Your task to perform on an android device: Show me recent news Image 0: 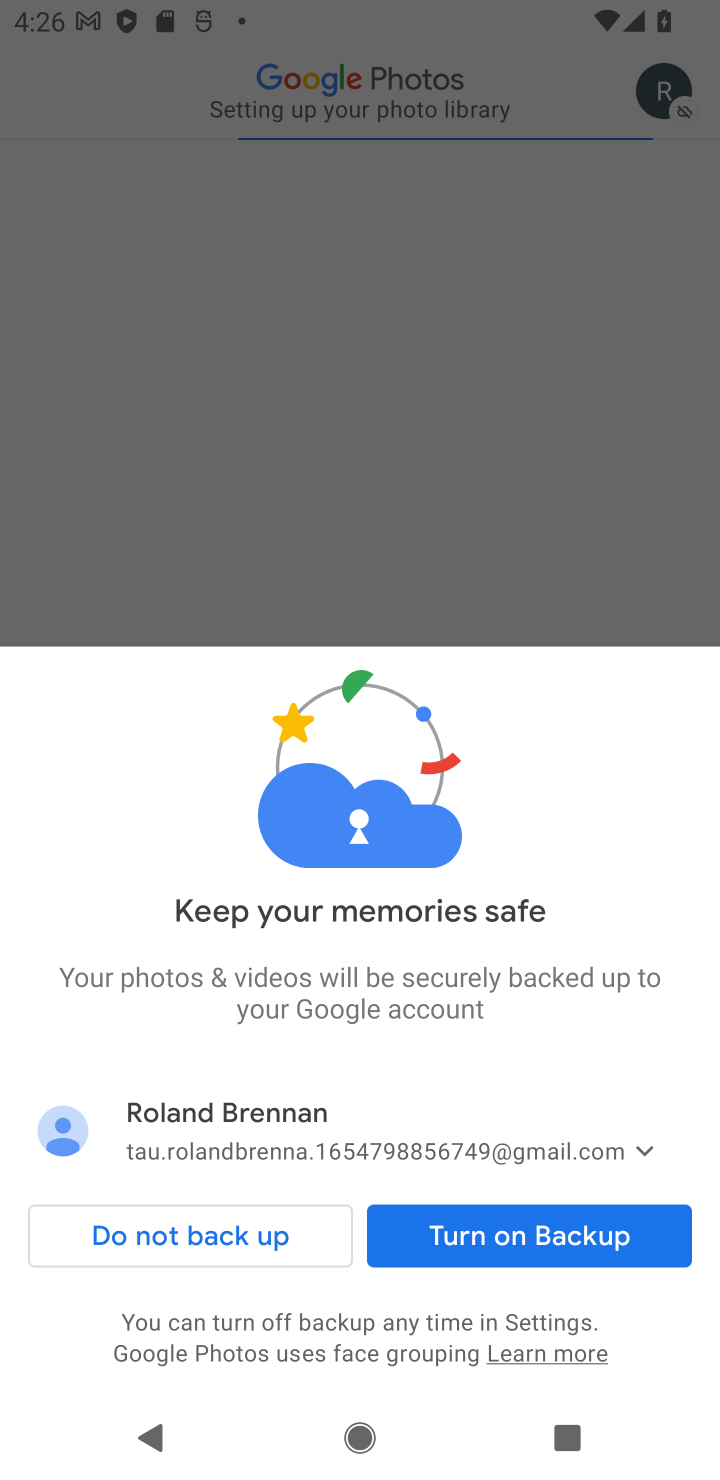
Step 0: press home button
Your task to perform on an android device: Show me recent news Image 1: 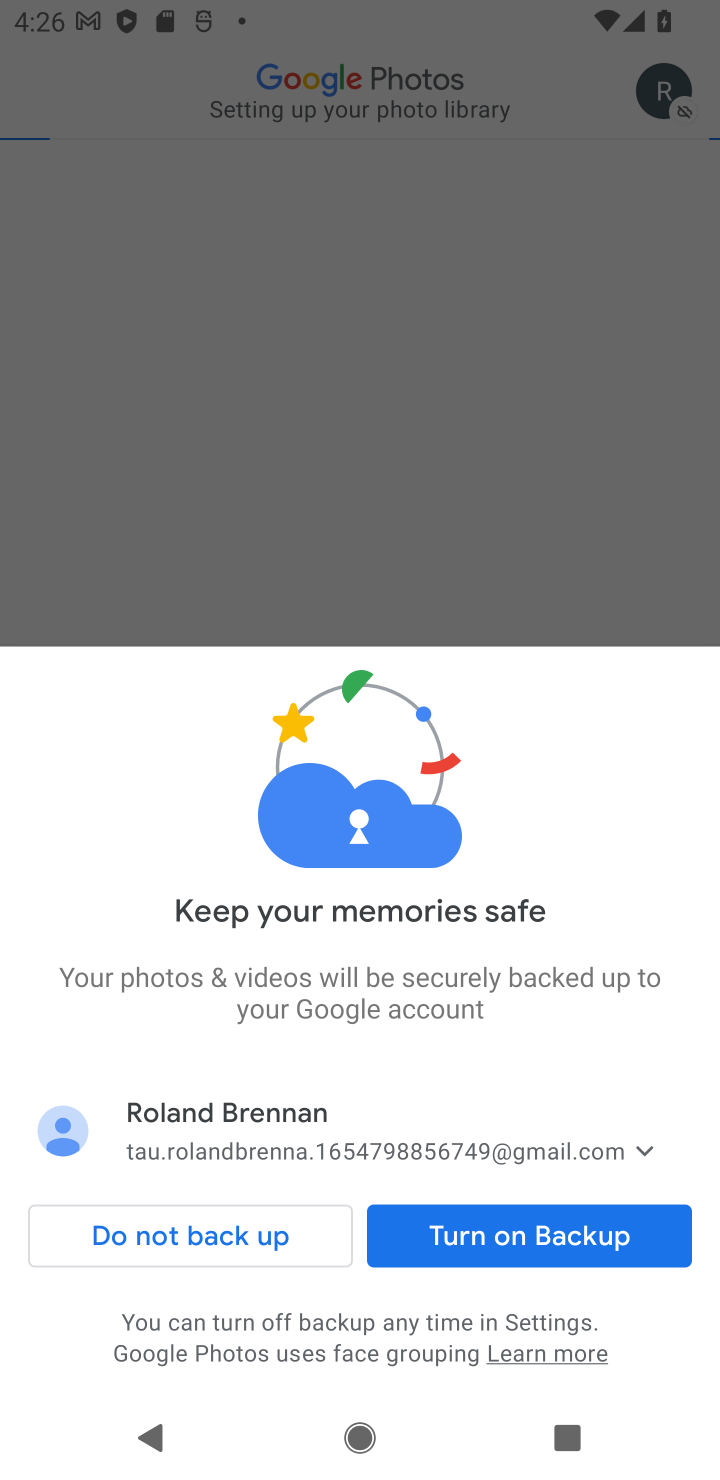
Step 1: press home button
Your task to perform on an android device: Show me recent news Image 2: 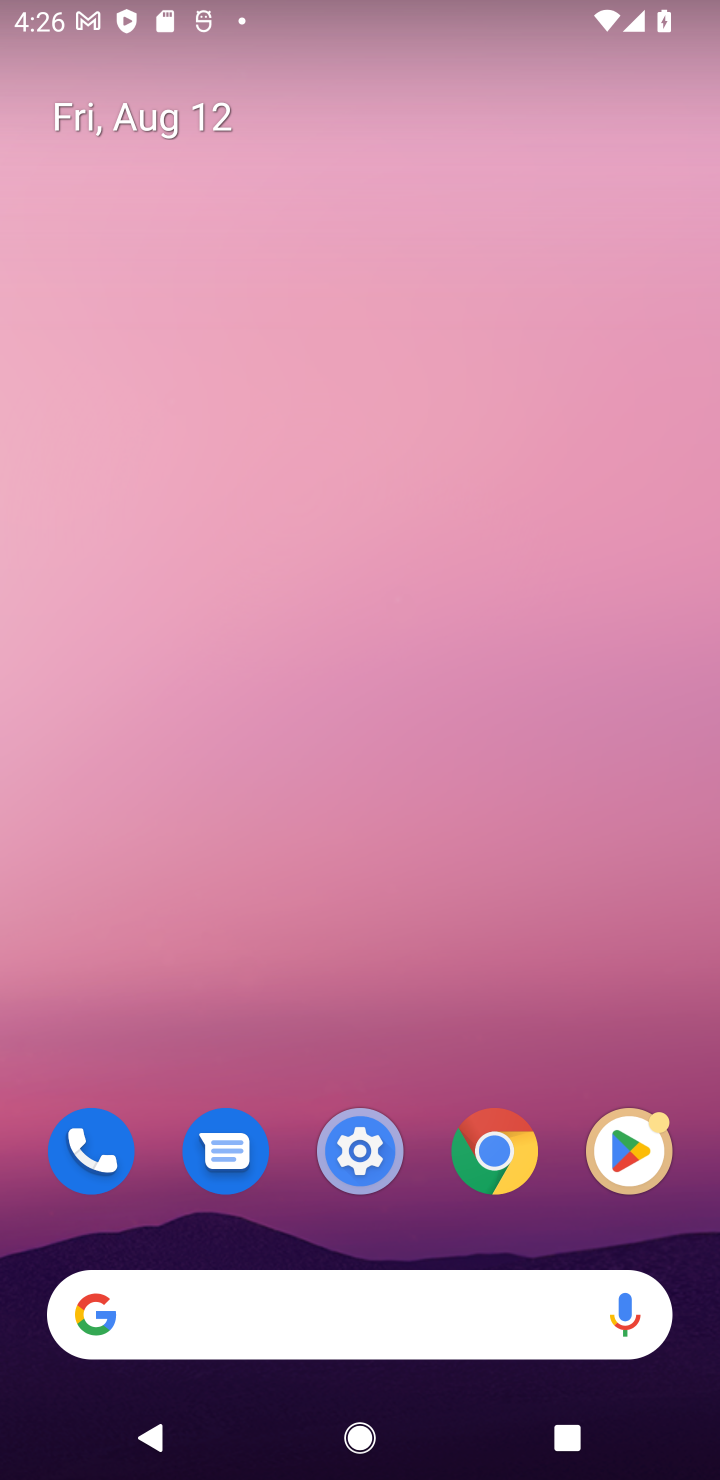
Step 2: drag from (417, 1066) to (447, 191)
Your task to perform on an android device: Show me recent news Image 3: 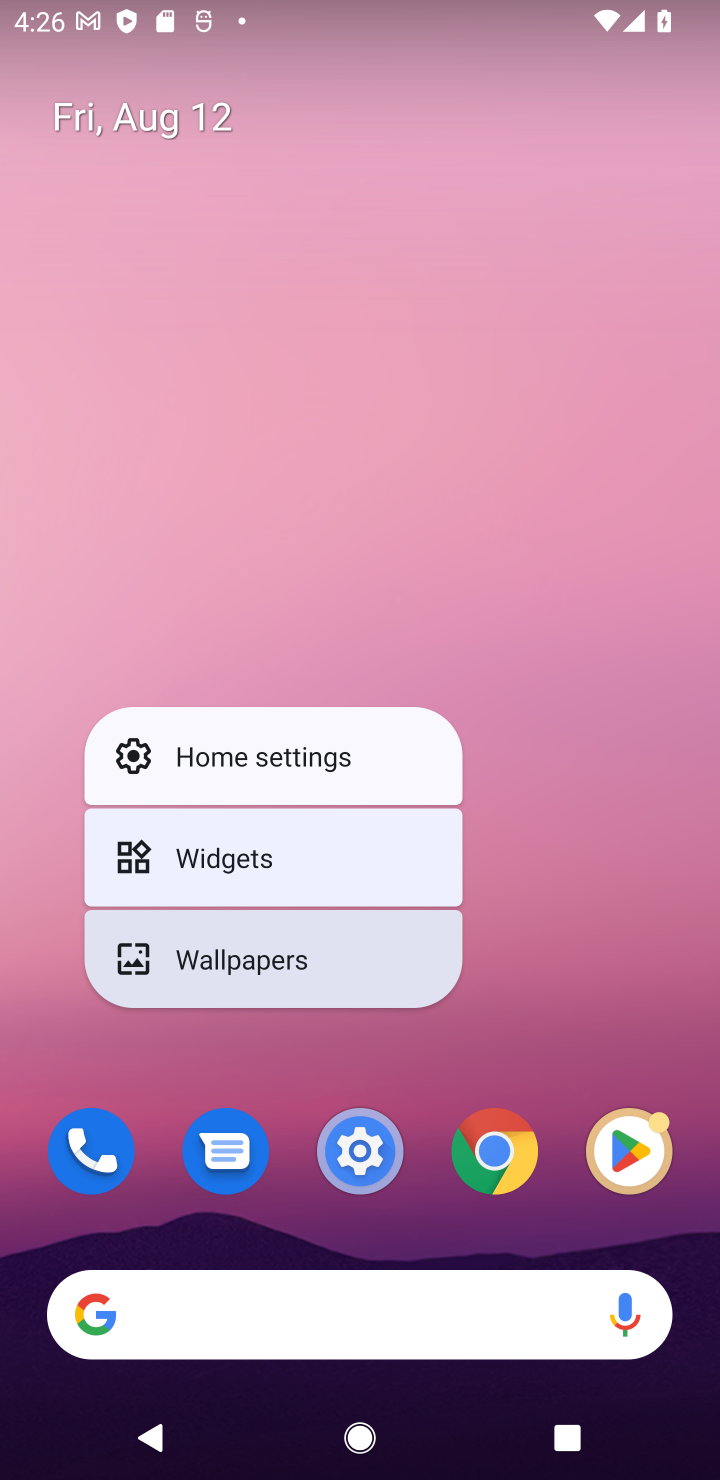
Step 3: click (574, 795)
Your task to perform on an android device: Show me recent news Image 4: 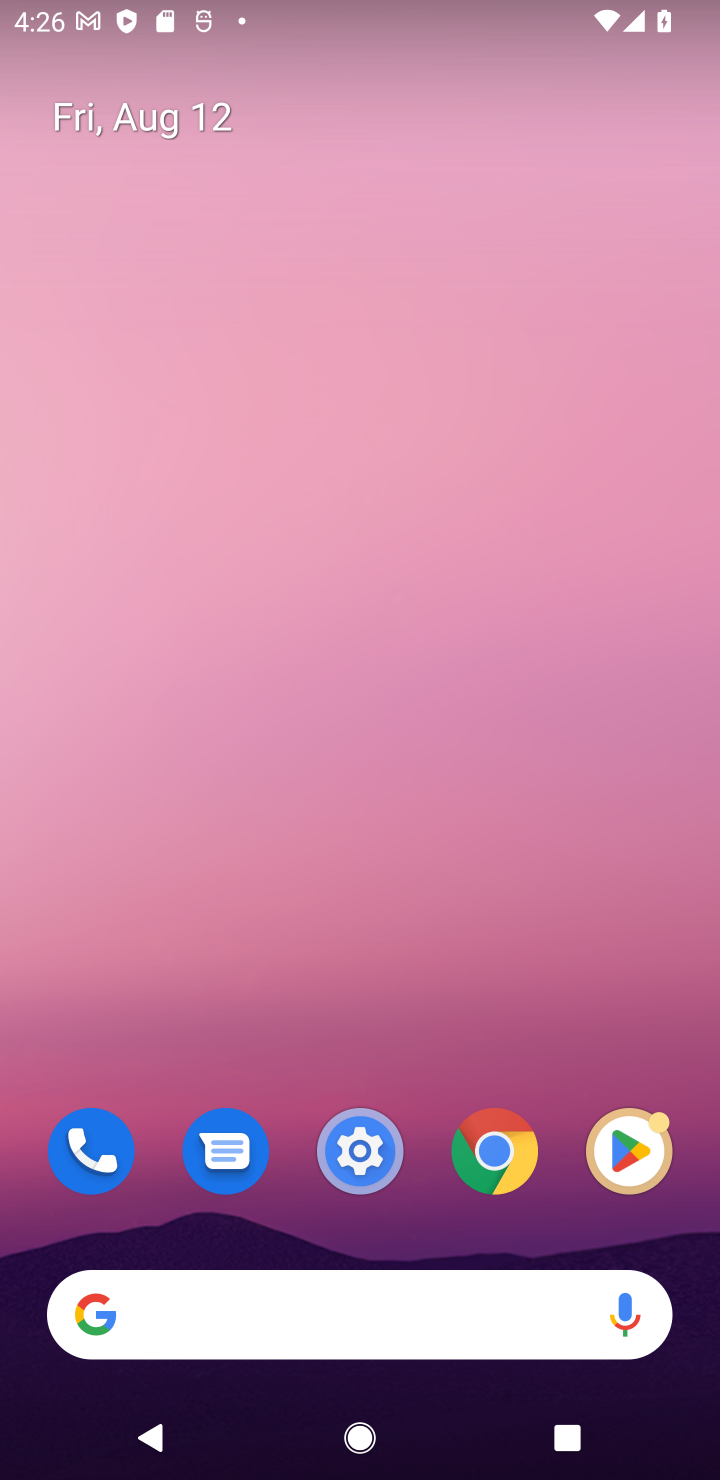
Step 4: drag from (430, 906) to (427, 0)
Your task to perform on an android device: Show me recent news Image 5: 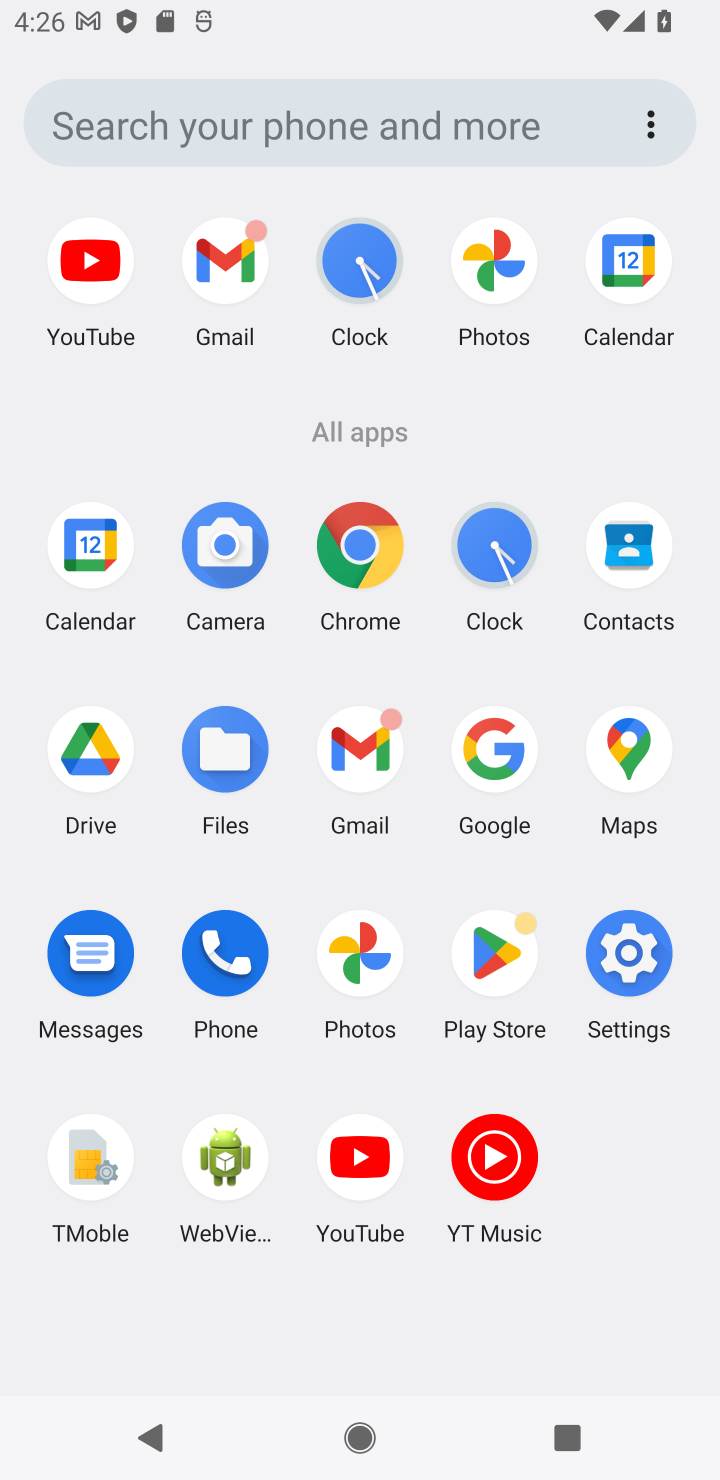
Step 5: click (358, 544)
Your task to perform on an android device: Show me recent news Image 6: 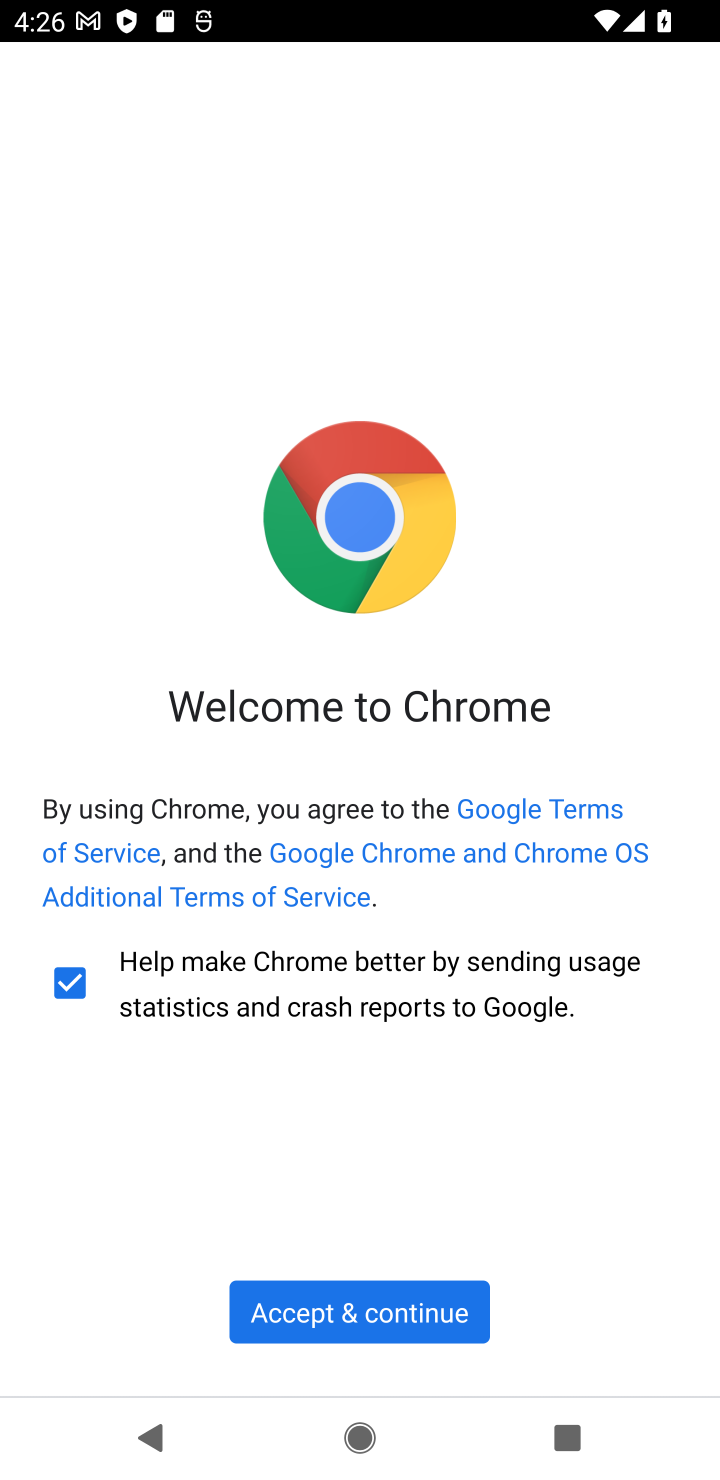
Step 6: click (417, 1321)
Your task to perform on an android device: Show me recent news Image 7: 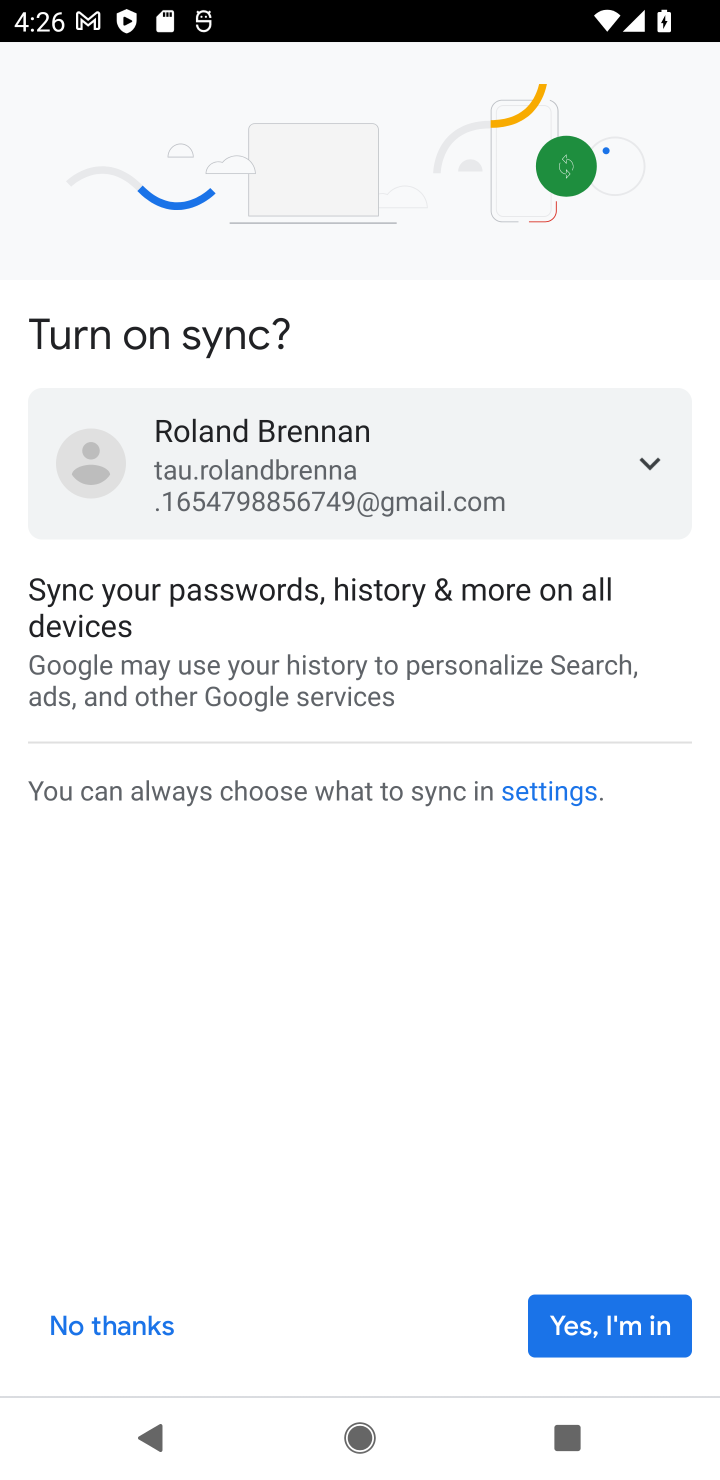
Step 7: click (638, 1329)
Your task to perform on an android device: Show me recent news Image 8: 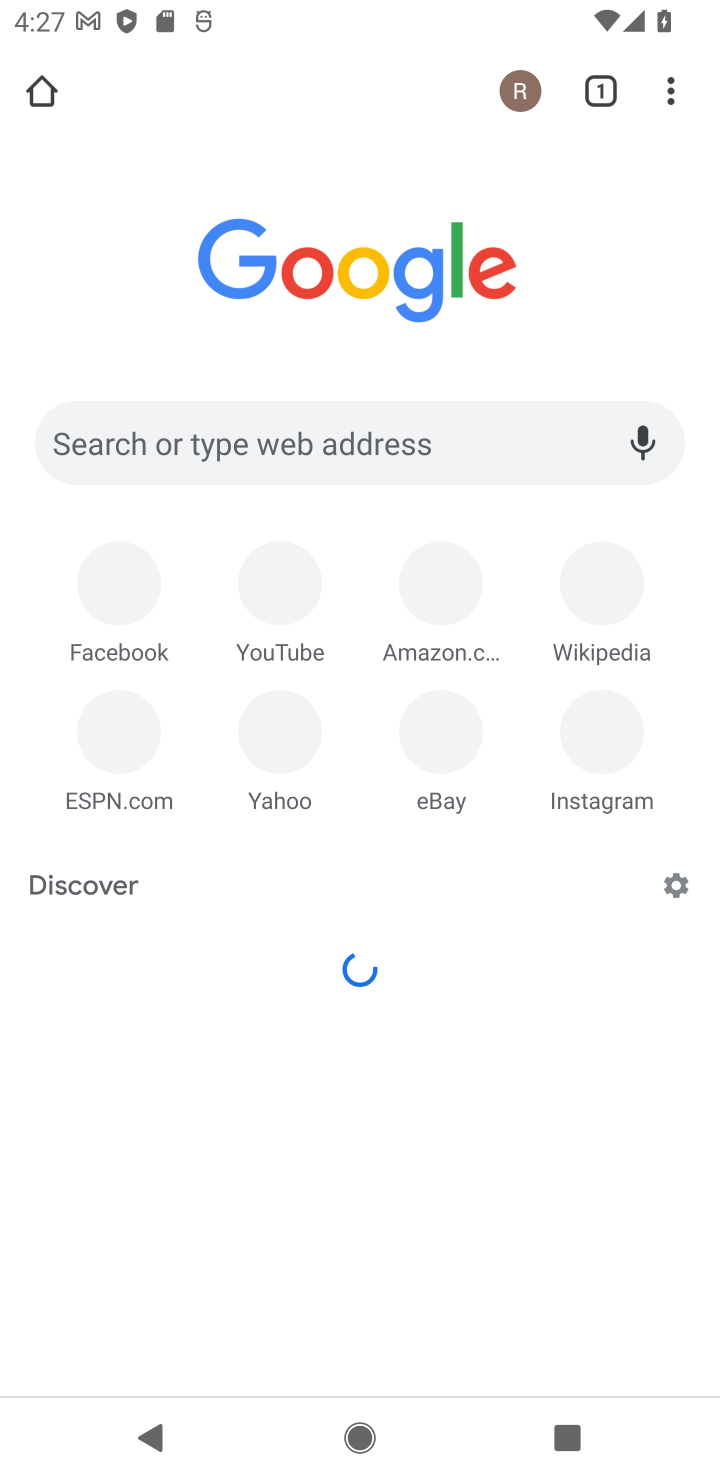
Step 8: click (507, 438)
Your task to perform on an android device: Show me recent news Image 9: 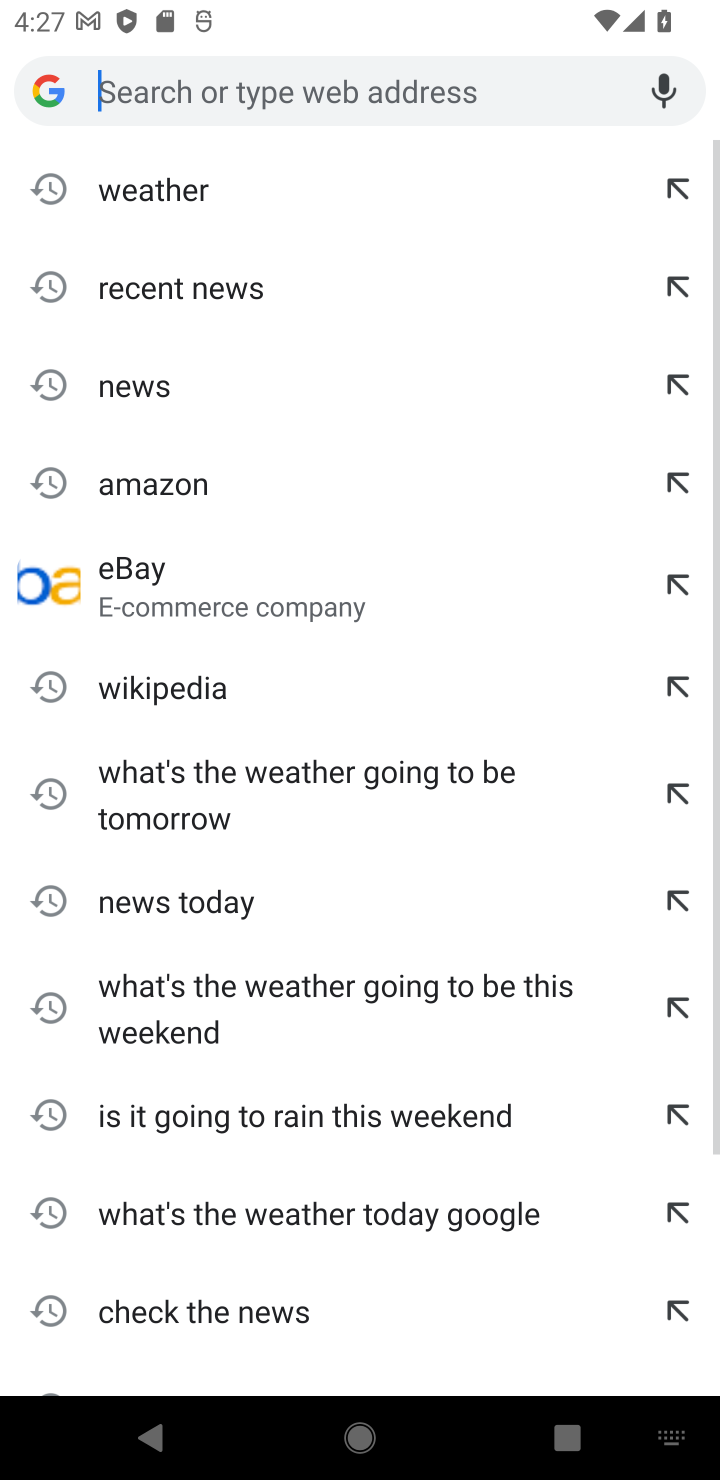
Step 9: click (135, 361)
Your task to perform on an android device: Show me recent news Image 10: 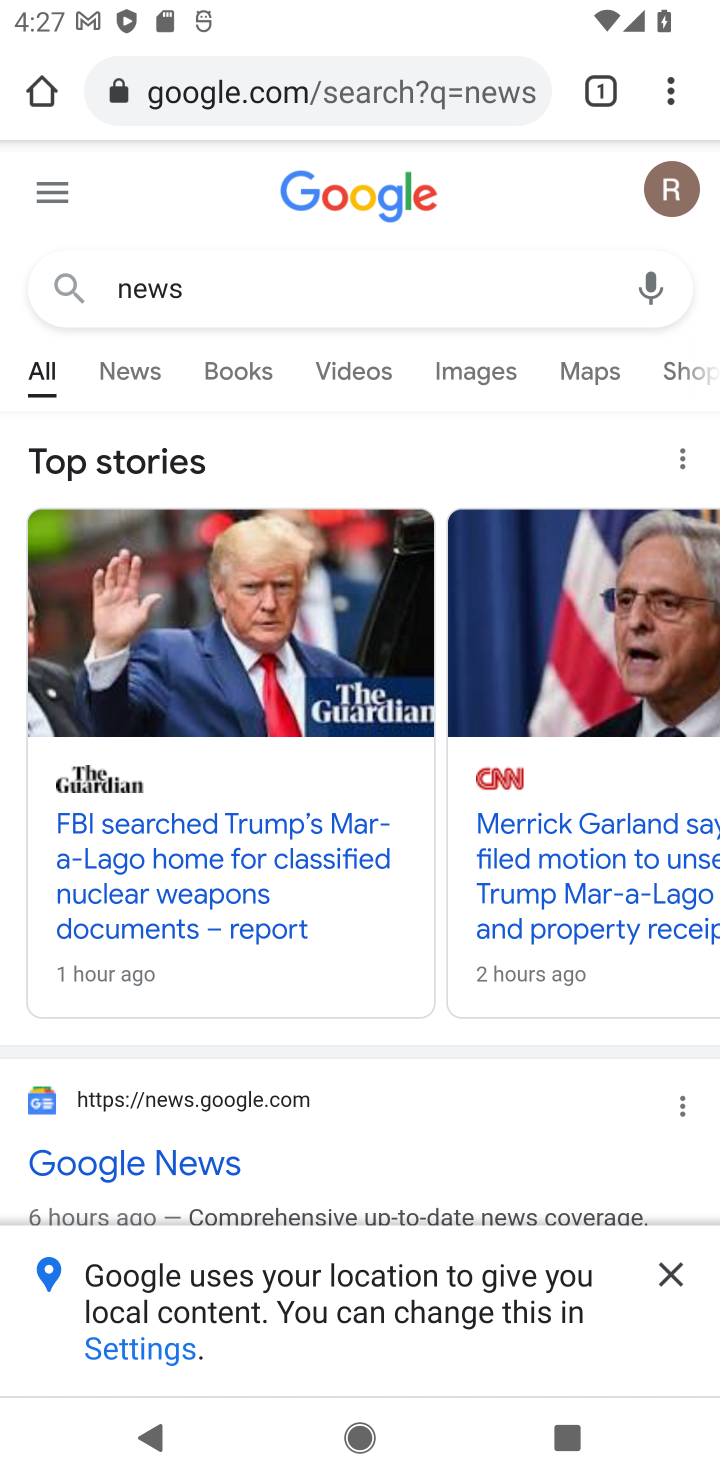
Step 10: click (171, 1180)
Your task to perform on an android device: Show me recent news Image 11: 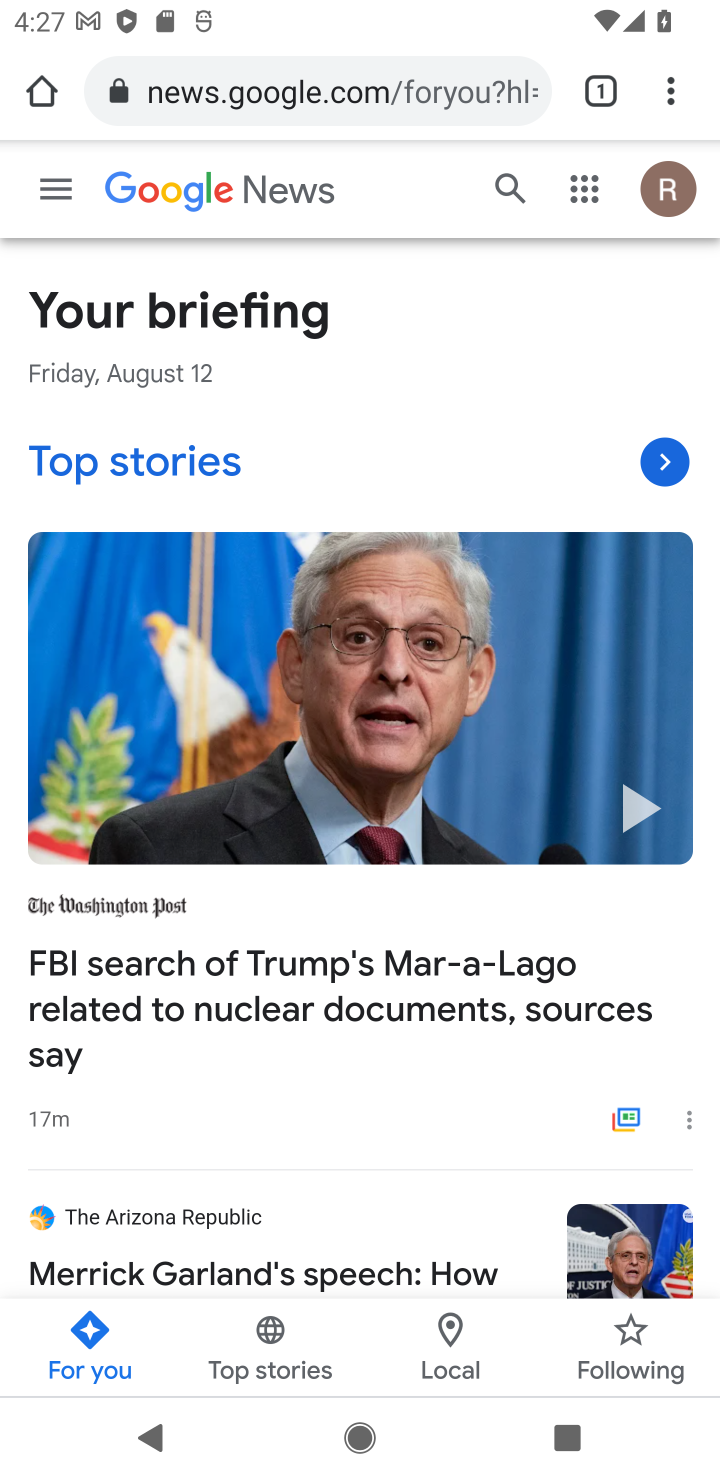
Step 11: task complete